Your task to perform on an android device: Go to privacy settings Image 0: 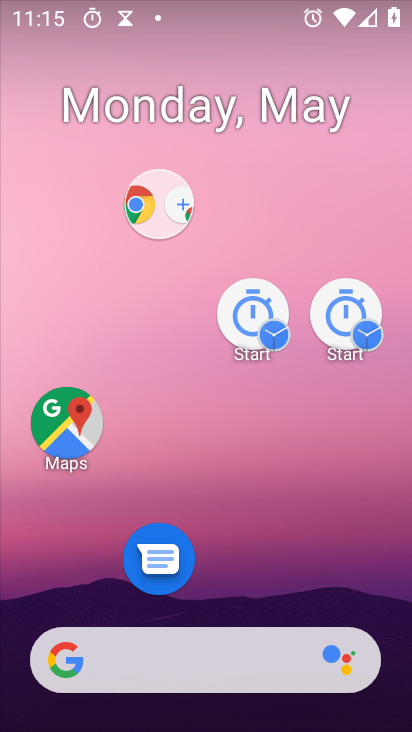
Step 0: click (411, 576)
Your task to perform on an android device: Go to privacy settings Image 1: 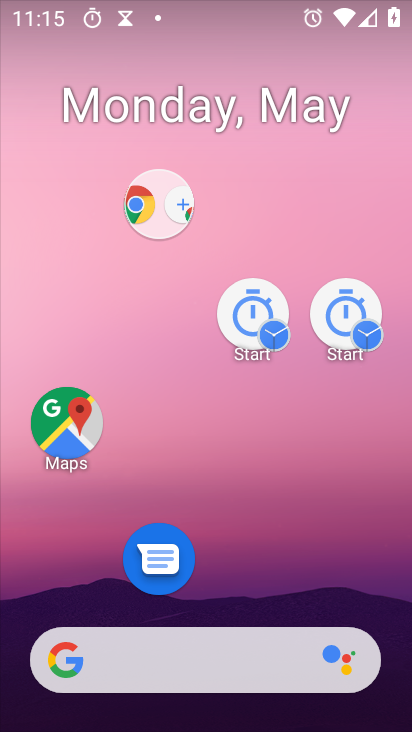
Step 1: drag from (304, 706) to (186, 261)
Your task to perform on an android device: Go to privacy settings Image 2: 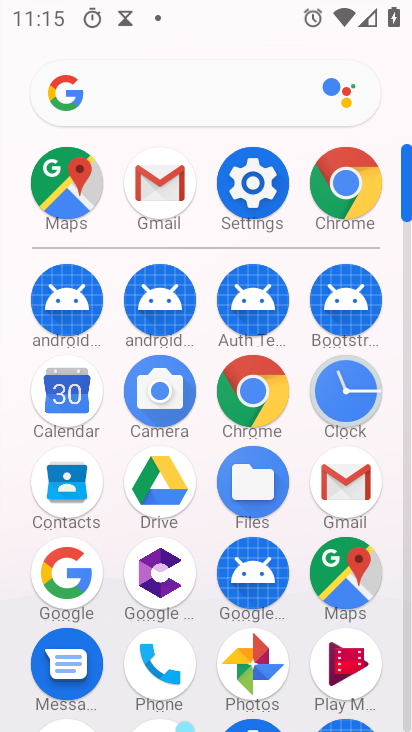
Step 2: click (243, 202)
Your task to perform on an android device: Go to privacy settings Image 3: 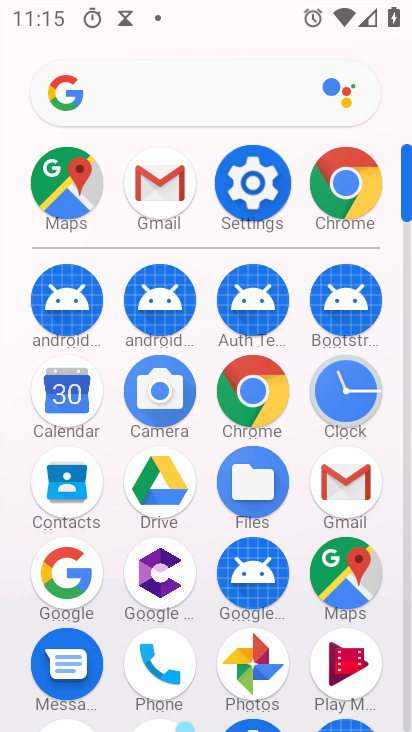
Step 3: click (244, 202)
Your task to perform on an android device: Go to privacy settings Image 4: 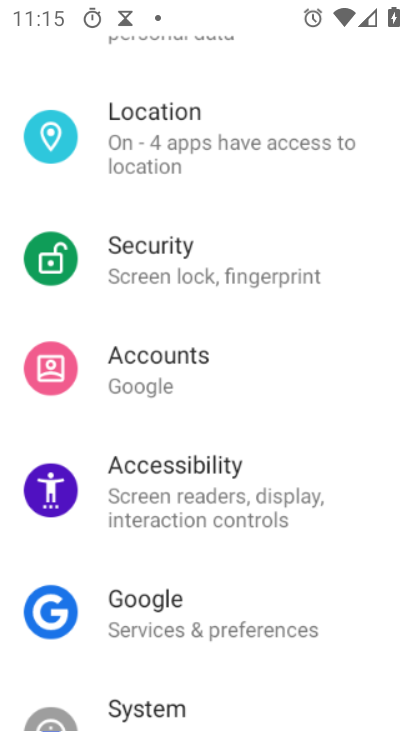
Step 4: click (232, 176)
Your task to perform on an android device: Go to privacy settings Image 5: 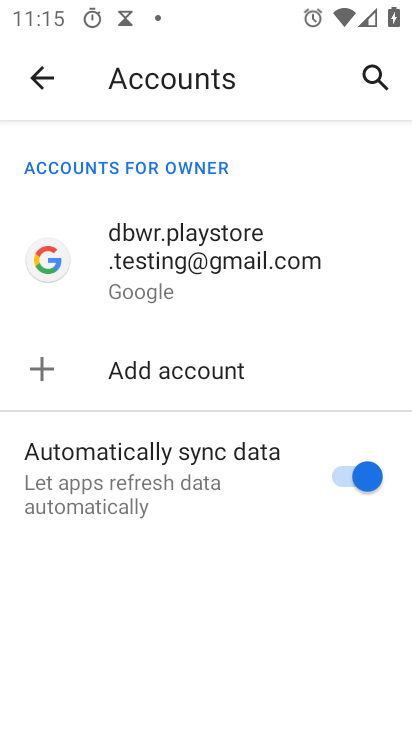
Step 5: click (52, 87)
Your task to perform on an android device: Go to privacy settings Image 6: 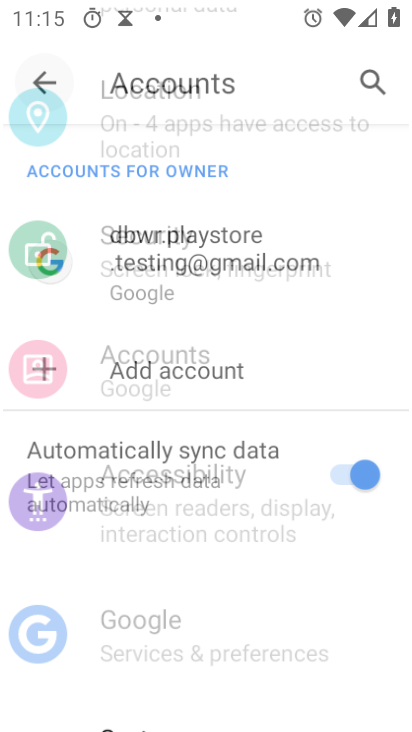
Step 6: click (34, 73)
Your task to perform on an android device: Go to privacy settings Image 7: 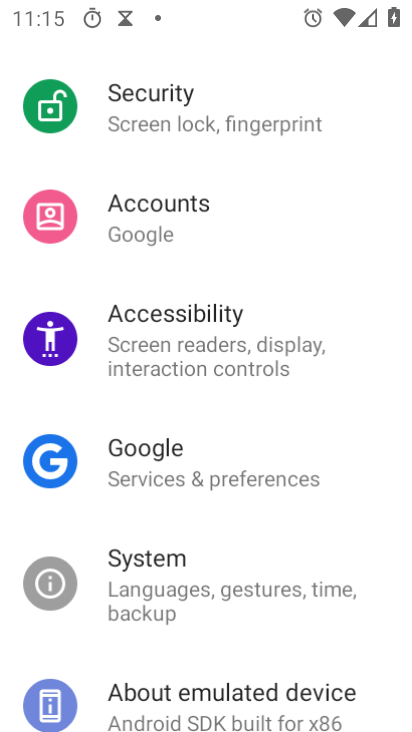
Step 7: click (41, 70)
Your task to perform on an android device: Go to privacy settings Image 8: 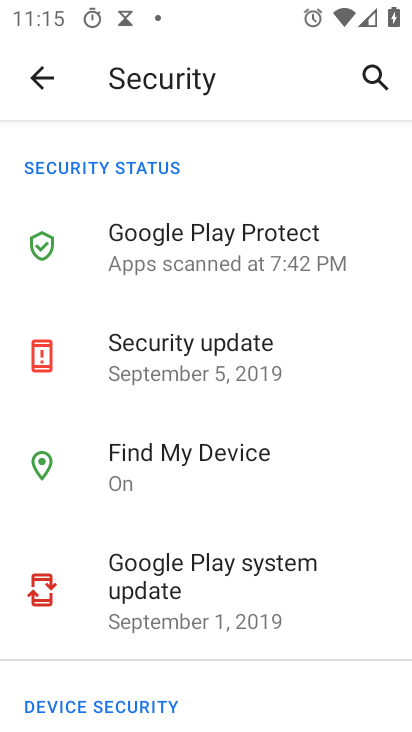
Step 8: click (44, 84)
Your task to perform on an android device: Go to privacy settings Image 9: 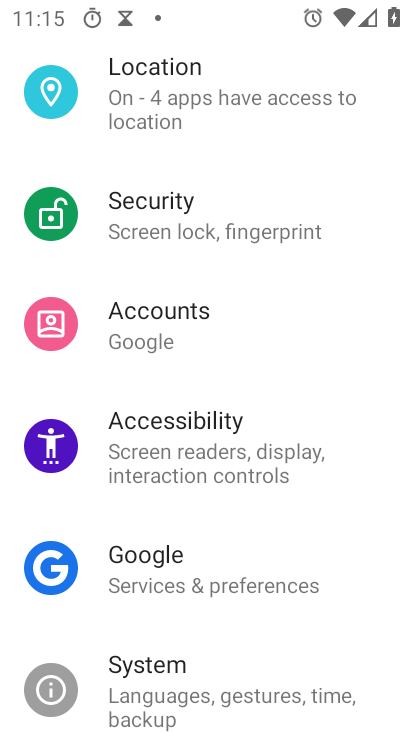
Step 9: click (45, 84)
Your task to perform on an android device: Go to privacy settings Image 10: 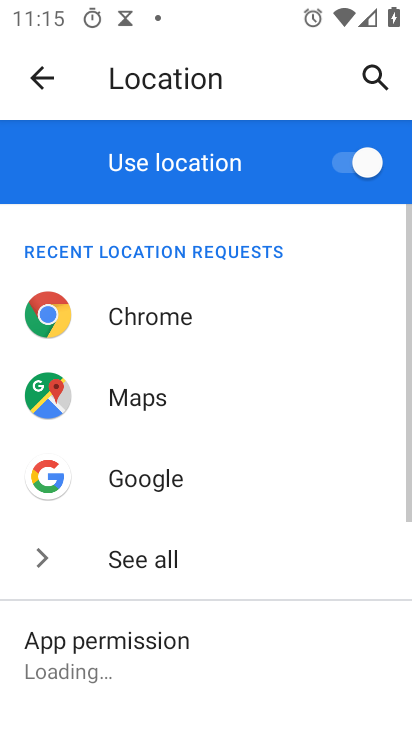
Step 10: click (46, 98)
Your task to perform on an android device: Go to privacy settings Image 11: 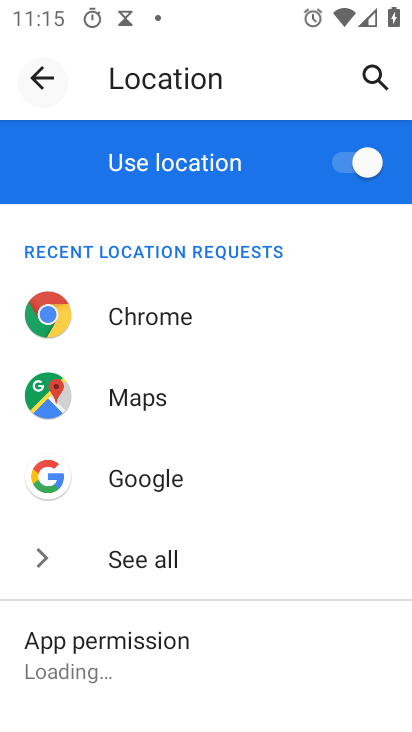
Step 11: click (46, 98)
Your task to perform on an android device: Go to privacy settings Image 12: 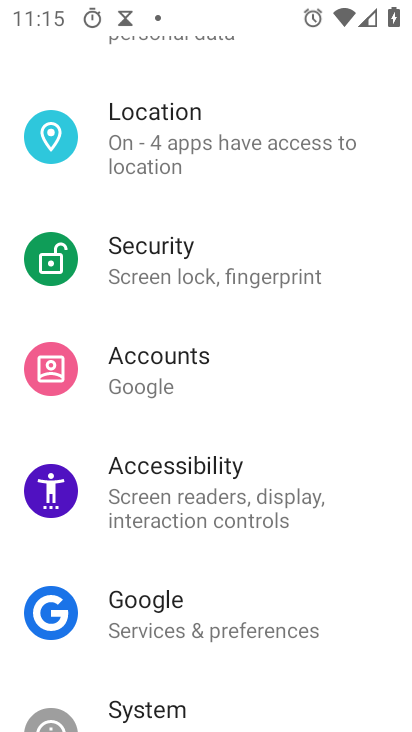
Step 12: drag from (129, 165) to (238, 488)
Your task to perform on an android device: Go to privacy settings Image 13: 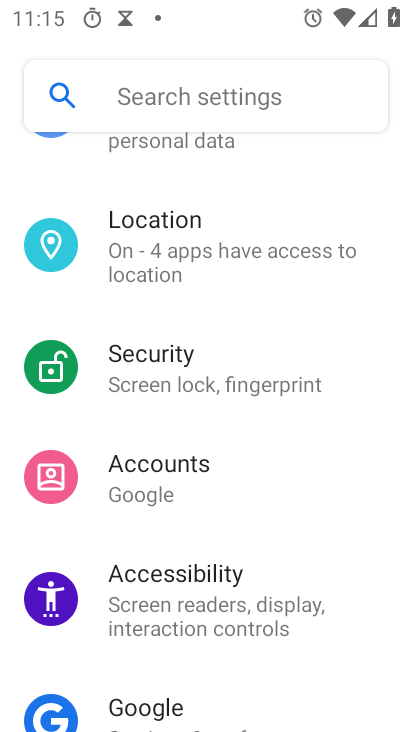
Step 13: drag from (238, 159) to (235, 573)
Your task to perform on an android device: Go to privacy settings Image 14: 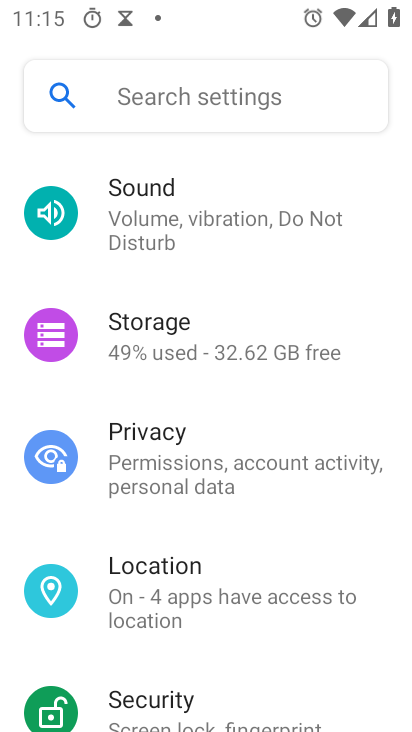
Step 14: drag from (180, 583) to (244, 679)
Your task to perform on an android device: Go to privacy settings Image 15: 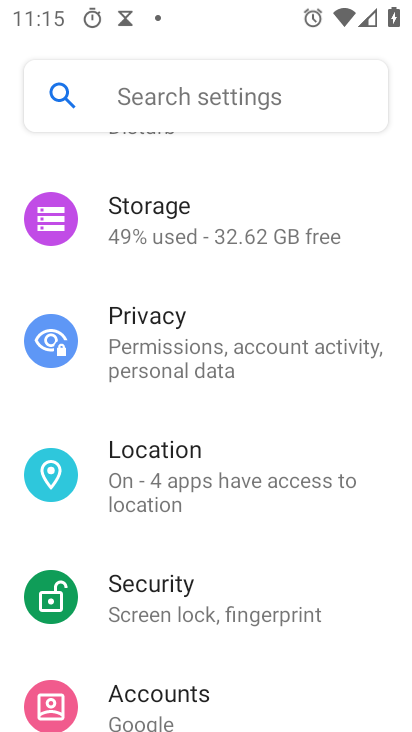
Step 15: drag from (194, 702) to (135, 507)
Your task to perform on an android device: Go to privacy settings Image 16: 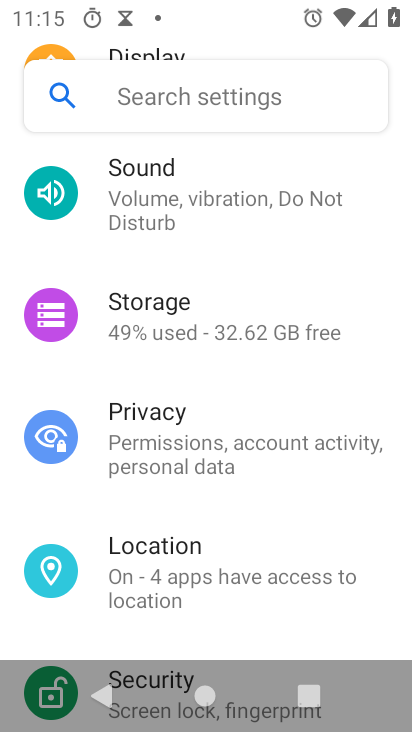
Step 16: drag from (195, 314) to (220, 542)
Your task to perform on an android device: Go to privacy settings Image 17: 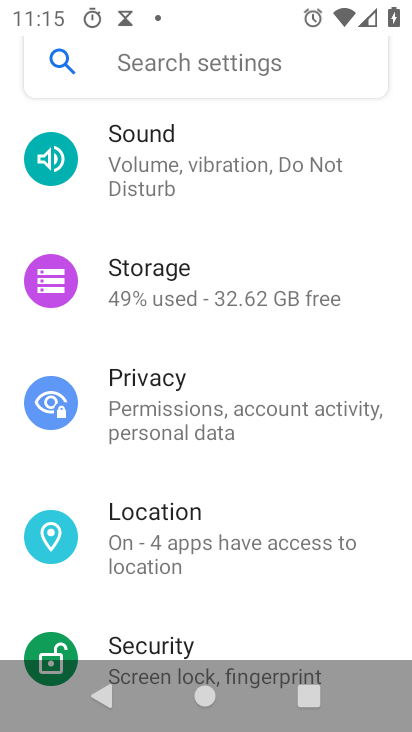
Step 17: drag from (169, 241) to (233, 521)
Your task to perform on an android device: Go to privacy settings Image 18: 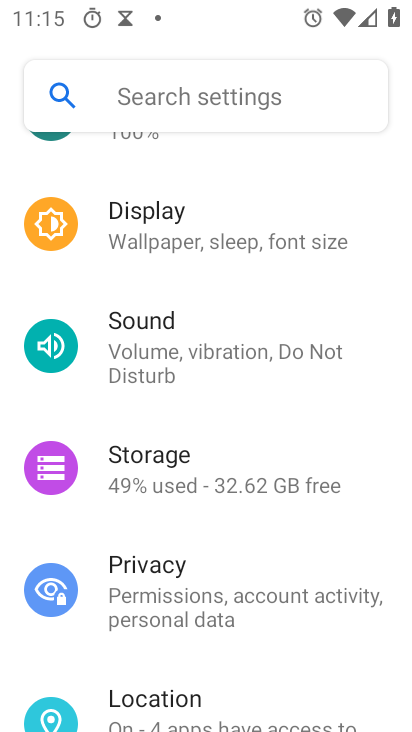
Step 18: drag from (166, 231) to (199, 512)
Your task to perform on an android device: Go to privacy settings Image 19: 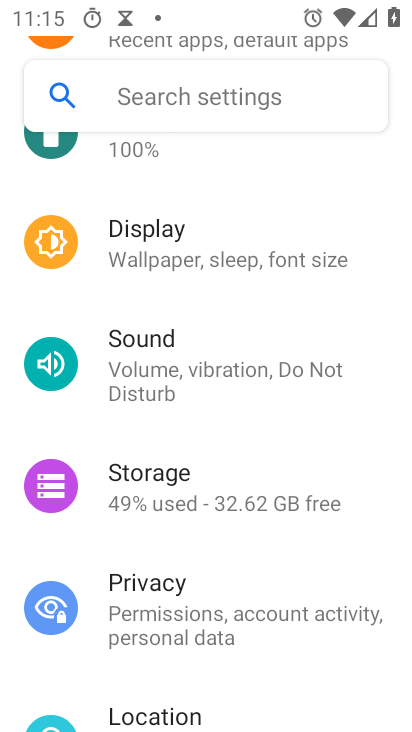
Step 19: drag from (154, 243) to (241, 449)
Your task to perform on an android device: Go to privacy settings Image 20: 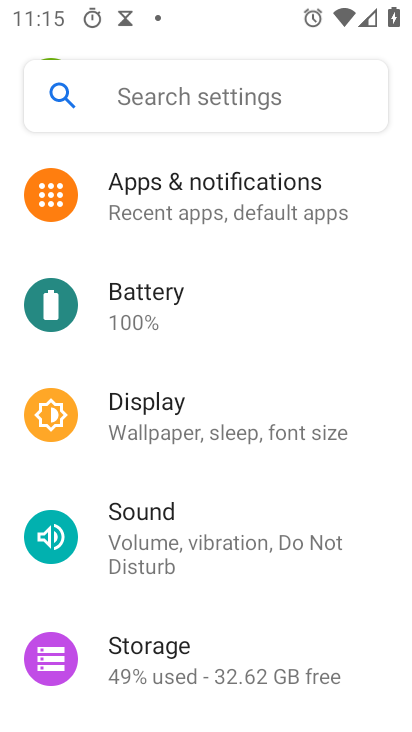
Step 20: drag from (174, 216) to (227, 487)
Your task to perform on an android device: Go to privacy settings Image 21: 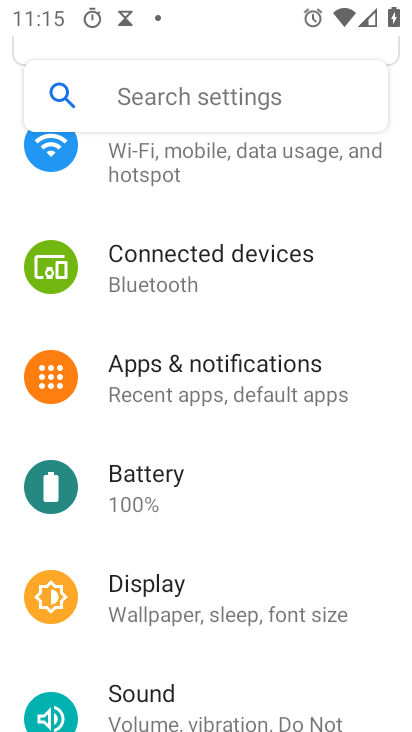
Step 21: drag from (154, 212) to (206, 531)
Your task to perform on an android device: Go to privacy settings Image 22: 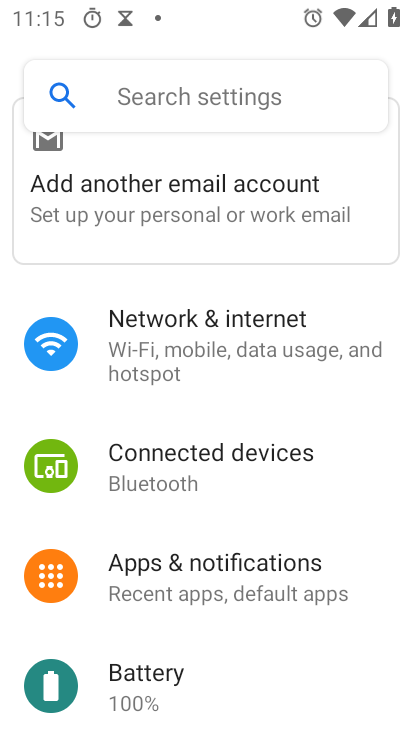
Step 22: drag from (244, 472) to (229, 537)
Your task to perform on an android device: Go to privacy settings Image 23: 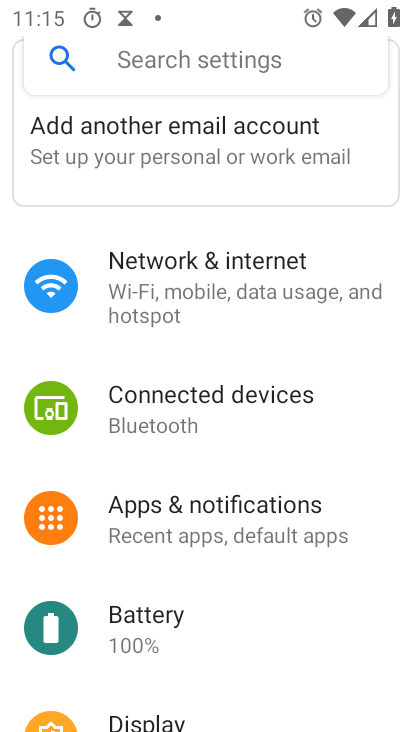
Step 23: drag from (165, 233) to (203, 504)
Your task to perform on an android device: Go to privacy settings Image 24: 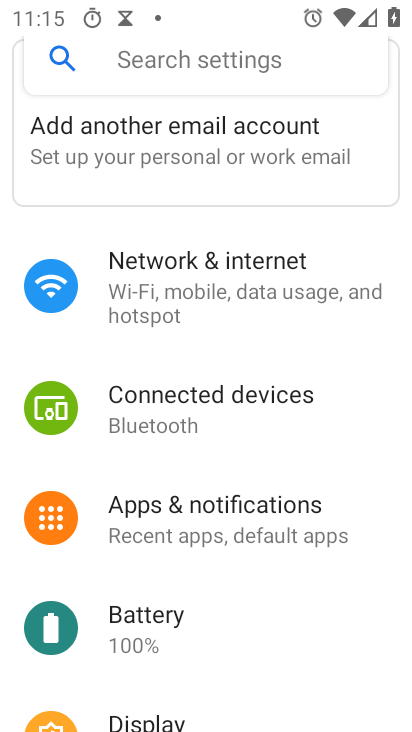
Step 24: drag from (142, 196) to (189, 511)
Your task to perform on an android device: Go to privacy settings Image 25: 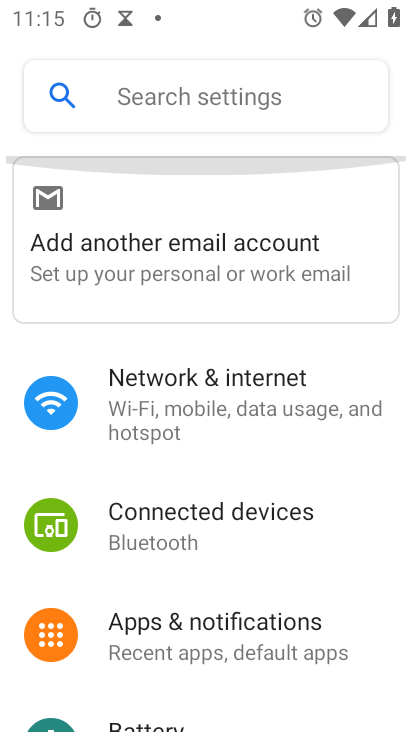
Step 25: drag from (152, 200) to (193, 469)
Your task to perform on an android device: Go to privacy settings Image 26: 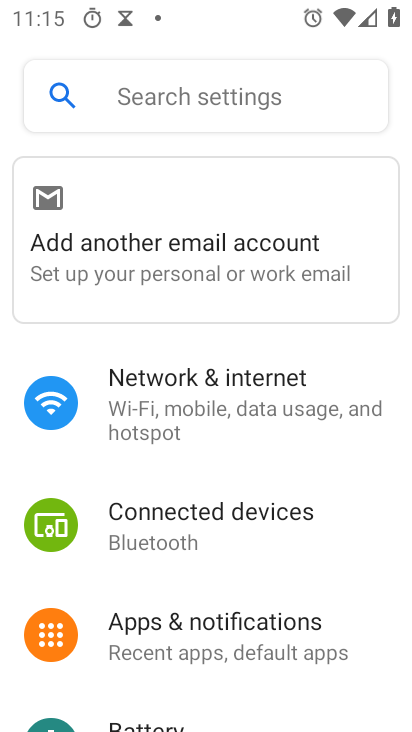
Step 26: drag from (187, 555) to (164, 317)
Your task to perform on an android device: Go to privacy settings Image 27: 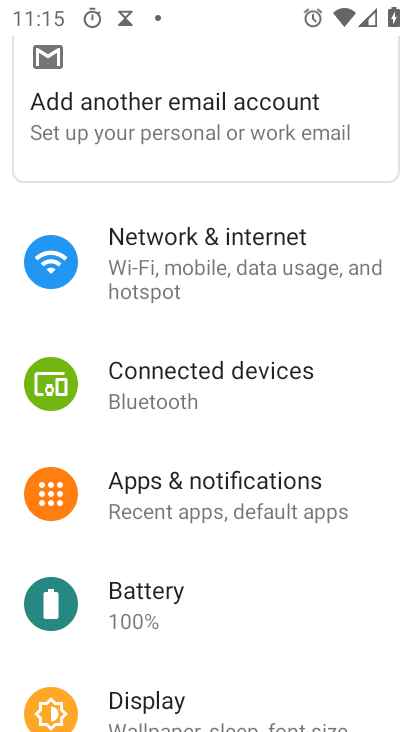
Step 27: drag from (211, 509) to (200, 265)
Your task to perform on an android device: Go to privacy settings Image 28: 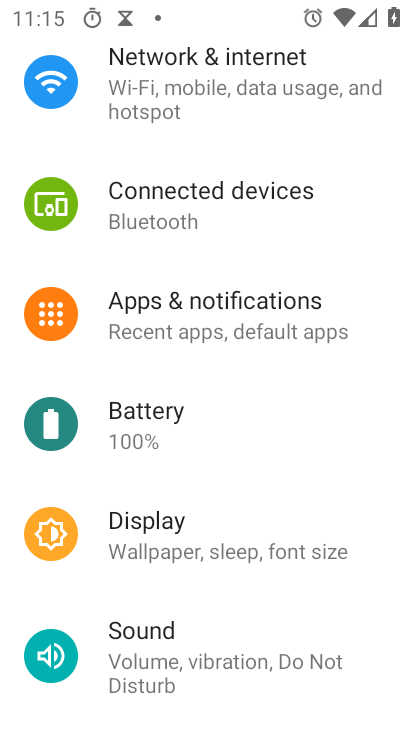
Step 28: drag from (217, 475) to (230, 175)
Your task to perform on an android device: Go to privacy settings Image 29: 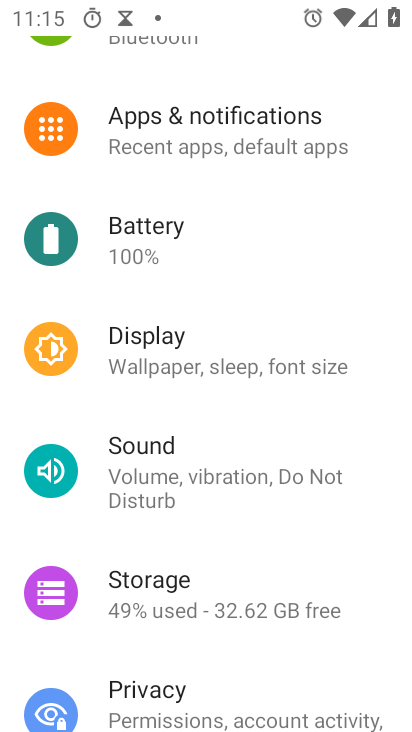
Step 29: drag from (201, 557) to (187, 210)
Your task to perform on an android device: Go to privacy settings Image 30: 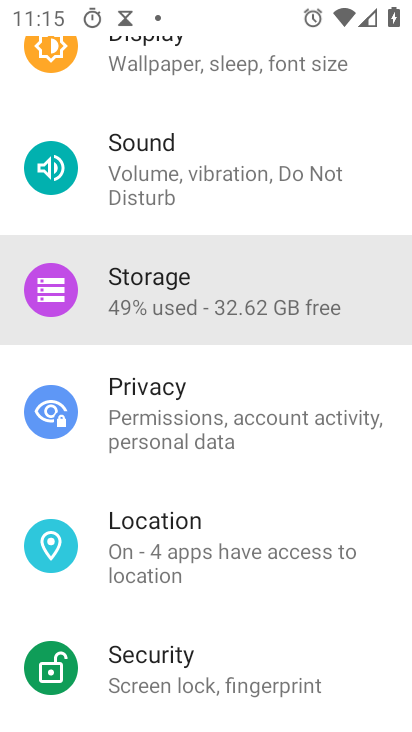
Step 30: drag from (194, 524) to (175, 168)
Your task to perform on an android device: Go to privacy settings Image 31: 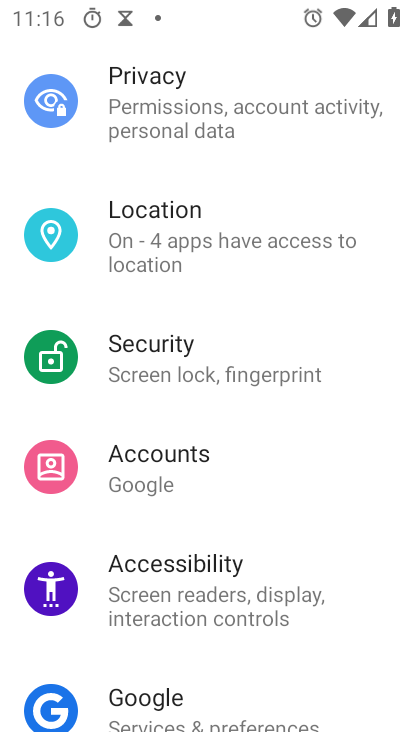
Step 31: click (155, 97)
Your task to perform on an android device: Go to privacy settings Image 32: 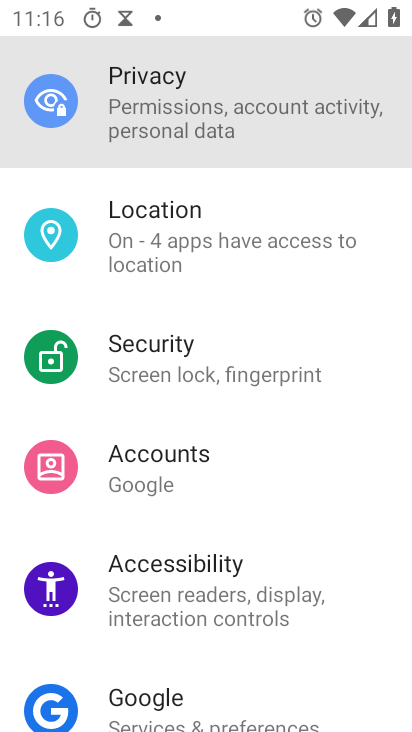
Step 32: click (157, 98)
Your task to perform on an android device: Go to privacy settings Image 33: 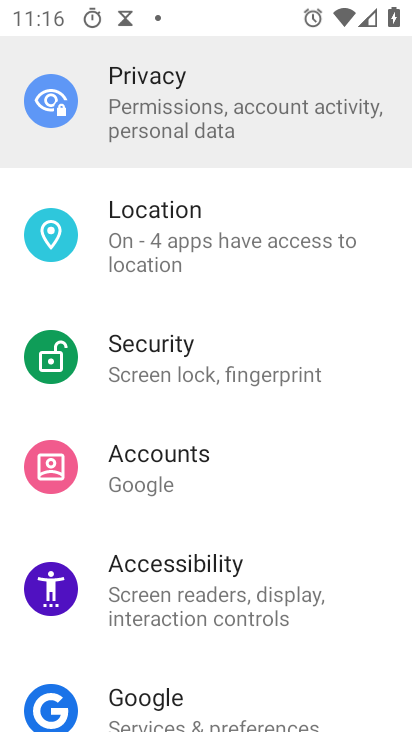
Step 33: click (159, 99)
Your task to perform on an android device: Go to privacy settings Image 34: 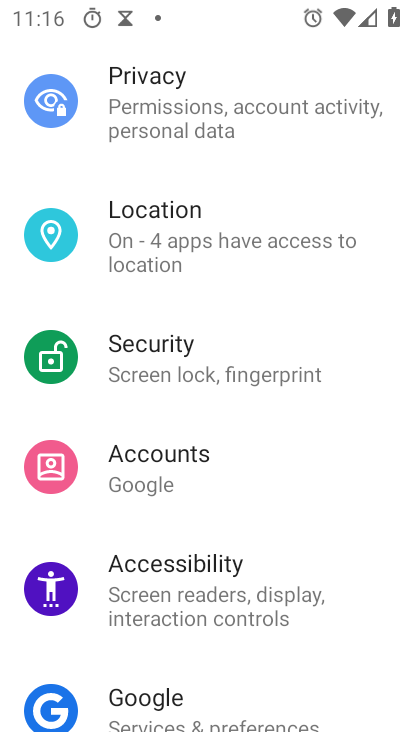
Step 34: click (166, 97)
Your task to perform on an android device: Go to privacy settings Image 35: 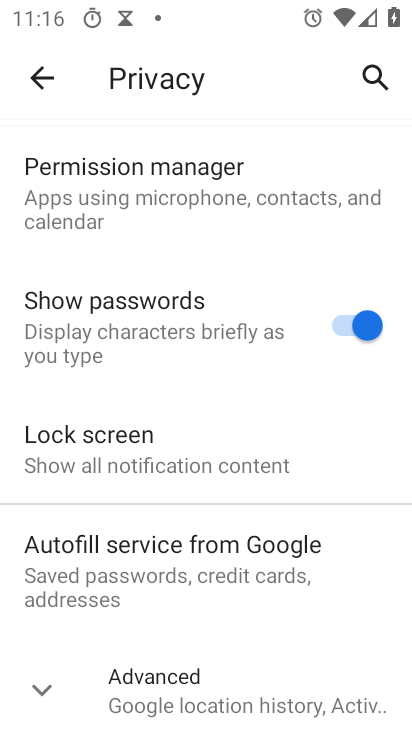
Step 35: task complete